Your task to perform on an android device: Open Amazon Image 0: 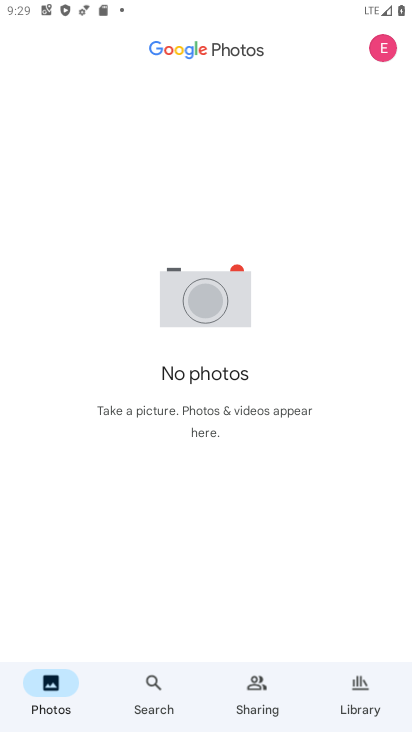
Step 0: press home button
Your task to perform on an android device: Open Amazon Image 1: 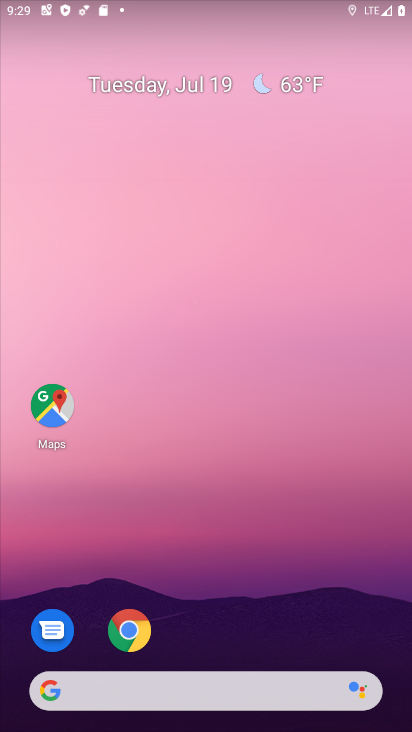
Step 1: click (127, 626)
Your task to perform on an android device: Open Amazon Image 2: 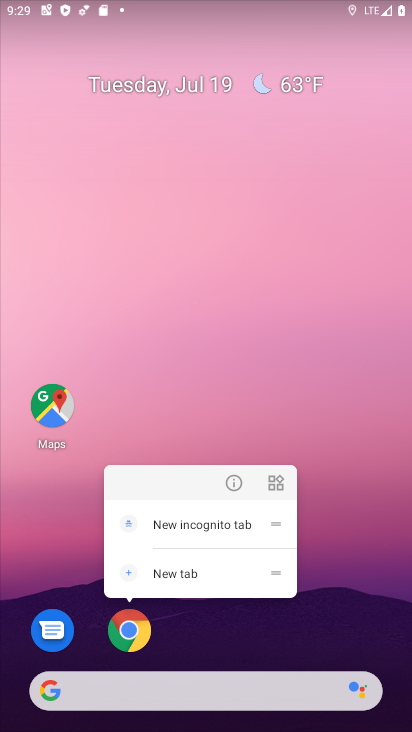
Step 2: click (132, 629)
Your task to perform on an android device: Open Amazon Image 3: 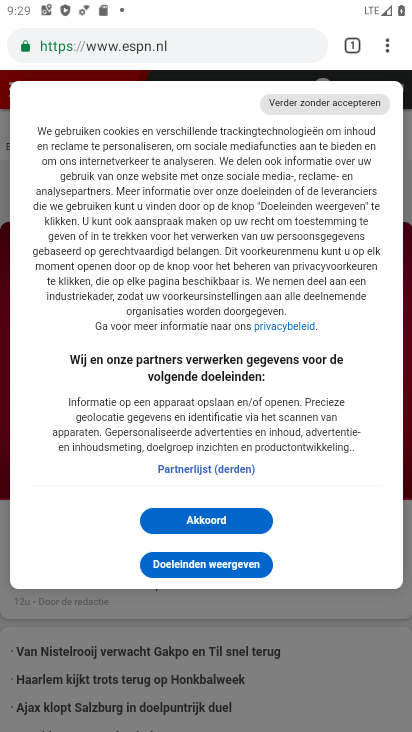
Step 3: click (244, 50)
Your task to perform on an android device: Open Amazon Image 4: 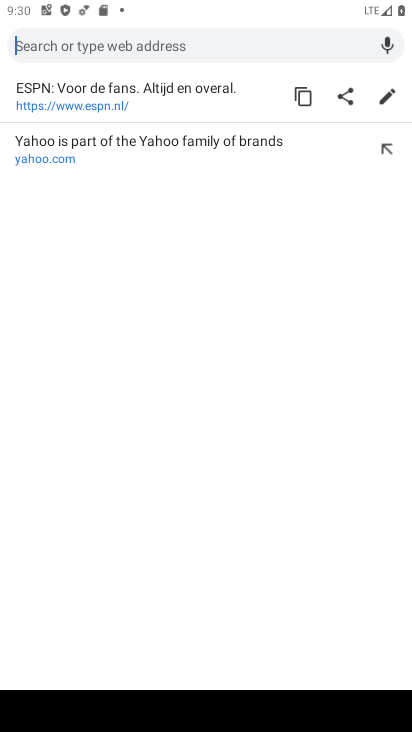
Step 4: type "Amazon"
Your task to perform on an android device: Open Amazon Image 5: 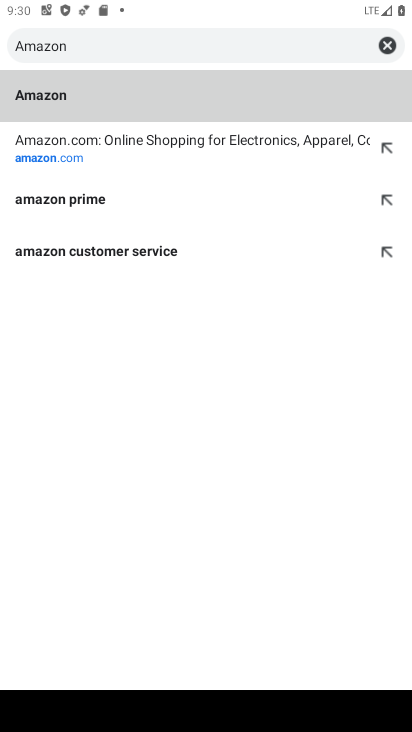
Step 5: click (230, 99)
Your task to perform on an android device: Open Amazon Image 6: 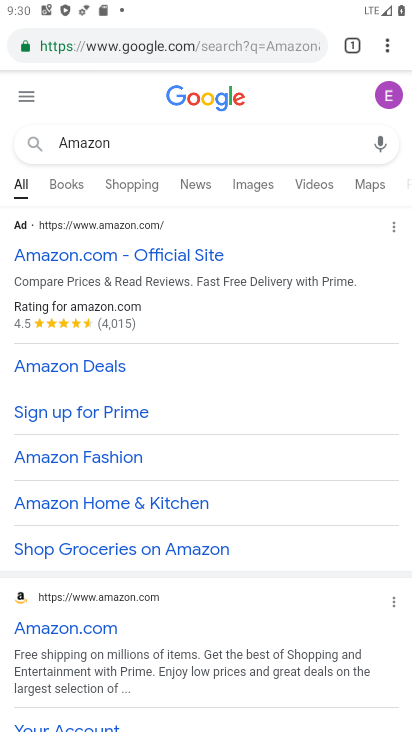
Step 6: click (116, 630)
Your task to perform on an android device: Open Amazon Image 7: 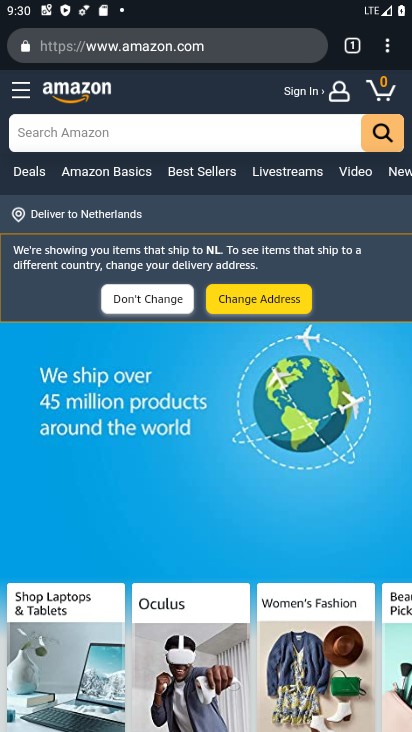
Step 7: task complete